Your task to perform on an android device: remove spam from my inbox in the gmail app Image 0: 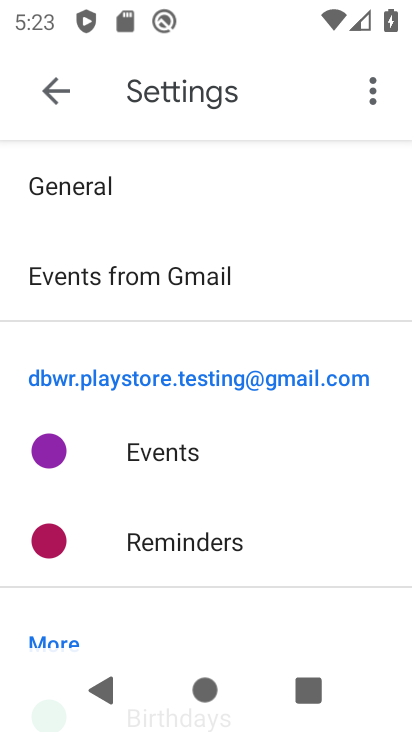
Step 0: press home button
Your task to perform on an android device: remove spam from my inbox in the gmail app Image 1: 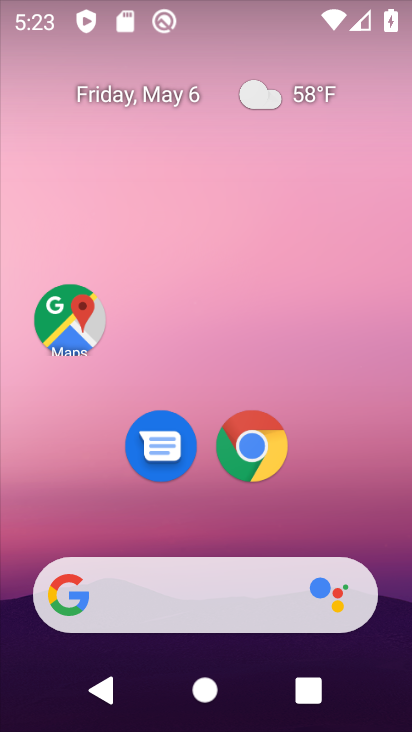
Step 1: drag from (325, 505) to (221, 49)
Your task to perform on an android device: remove spam from my inbox in the gmail app Image 2: 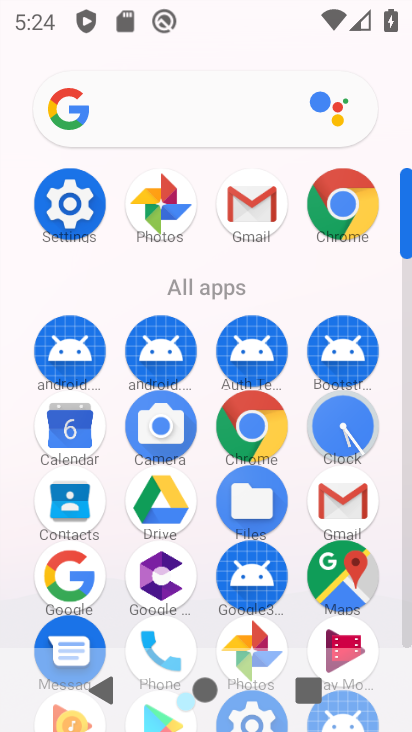
Step 2: click (238, 204)
Your task to perform on an android device: remove spam from my inbox in the gmail app Image 3: 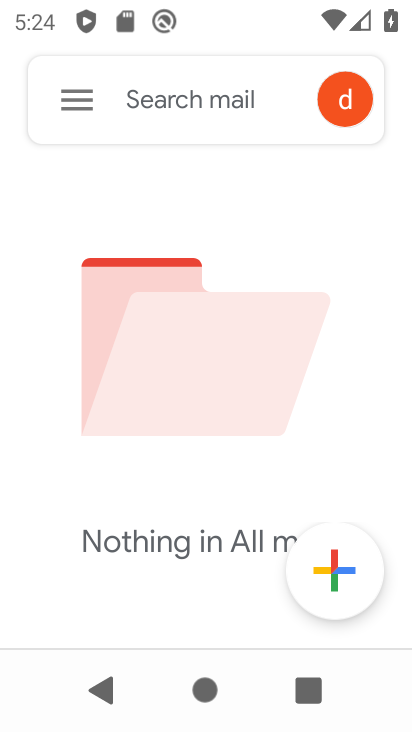
Step 3: click (81, 99)
Your task to perform on an android device: remove spam from my inbox in the gmail app Image 4: 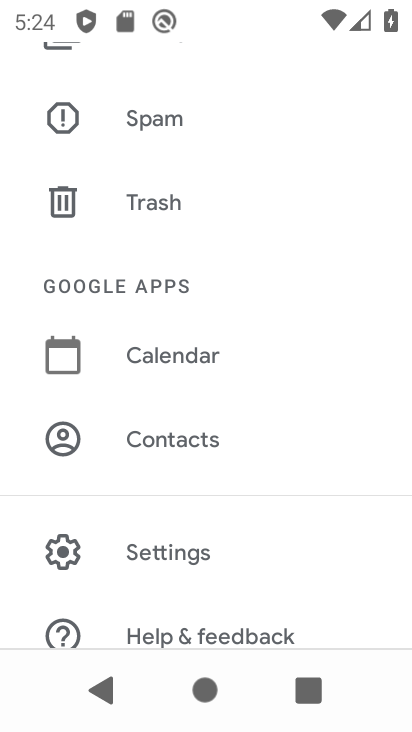
Step 4: click (157, 116)
Your task to perform on an android device: remove spam from my inbox in the gmail app Image 5: 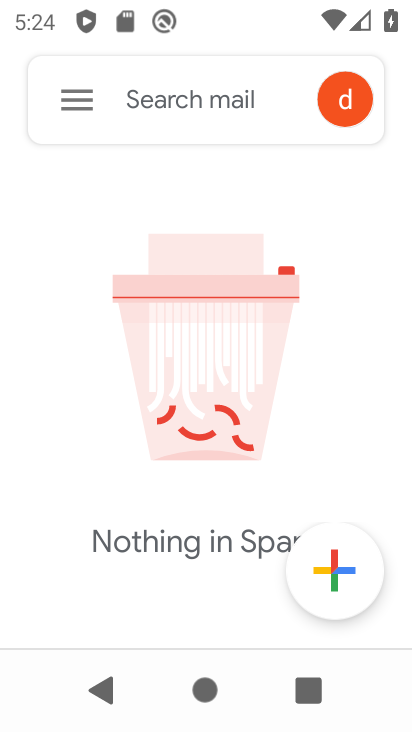
Step 5: task complete